Your task to perform on an android device: turn off improve location accuracy Image 0: 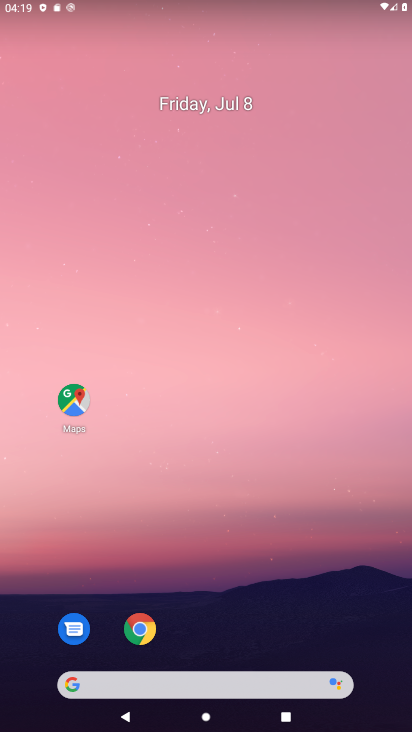
Step 0: drag from (226, 677) to (230, 96)
Your task to perform on an android device: turn off improve location accuracy Image 1: 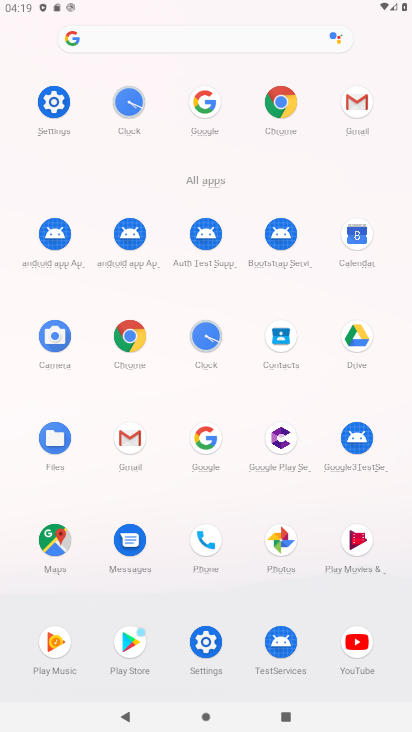
Step 1: click (207, 639)
Your task to perform on an android device: turn off improve location accuracy Image 2: 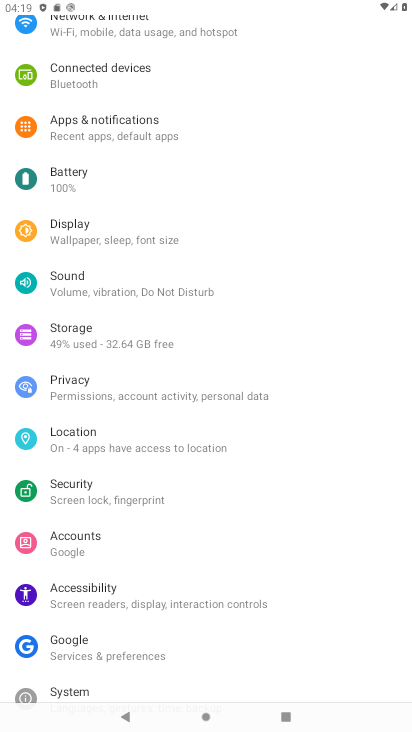
Step 2: click (85, 440)
Your task to perform on an android device: turn off improve location accuracy Image 3: 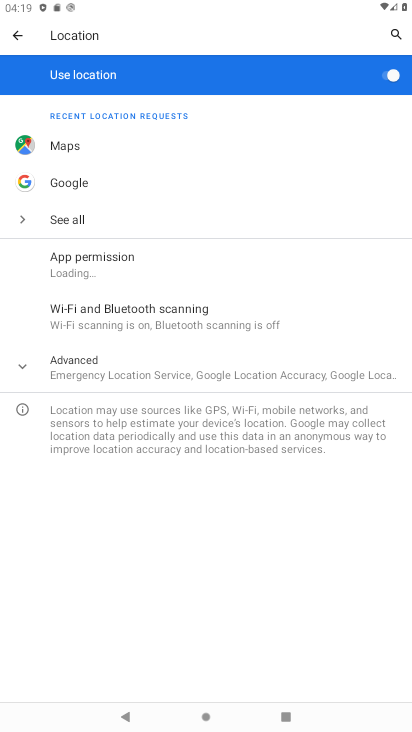
Step 3: click (79, 368)
Your task to perform on an android device: turn off improve location accuracy Image 4: 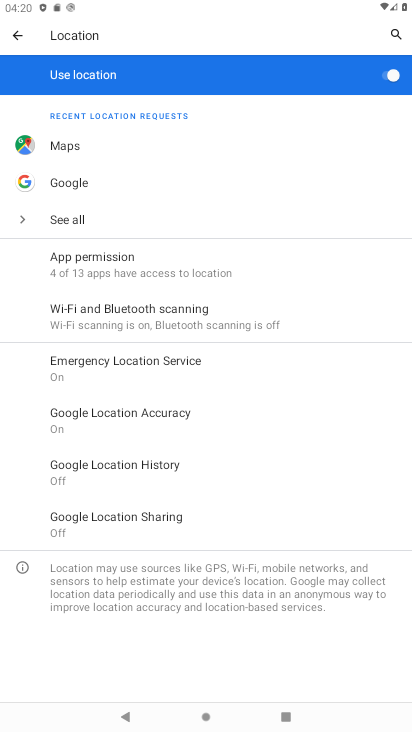
Step 4: click (129, 410)
Your task to perform on an android device: turn off improve location accuracy Image 5: 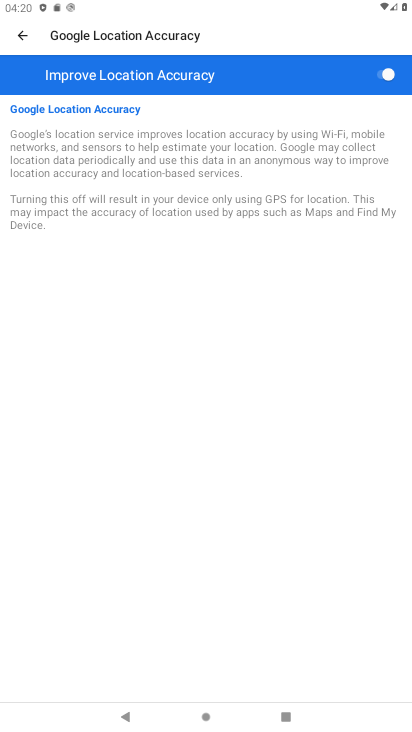
Step 5: click (384, 73)
Your task to perform on an android device: turn off improve location accuracy Image 6: 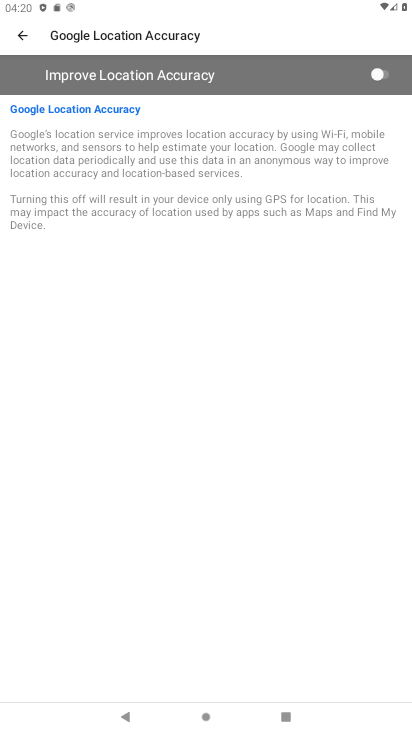
Step 6: task complete